Your task to perform on an android device: check data usage Image 0: 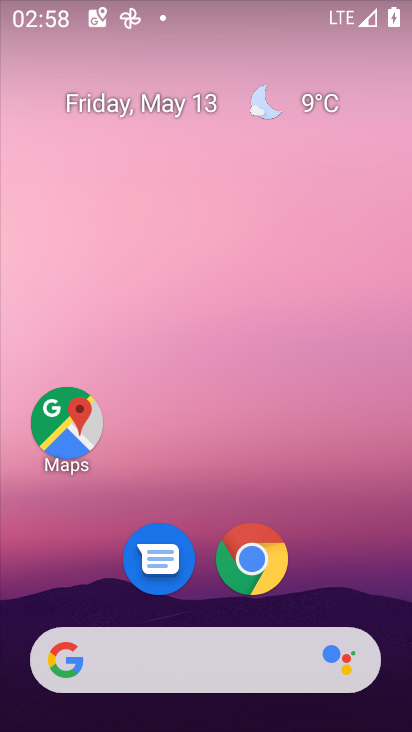
Step 0: drag from (399, 674) to (362, 238)
Your task to perform on an android device: check data usage Image 1: 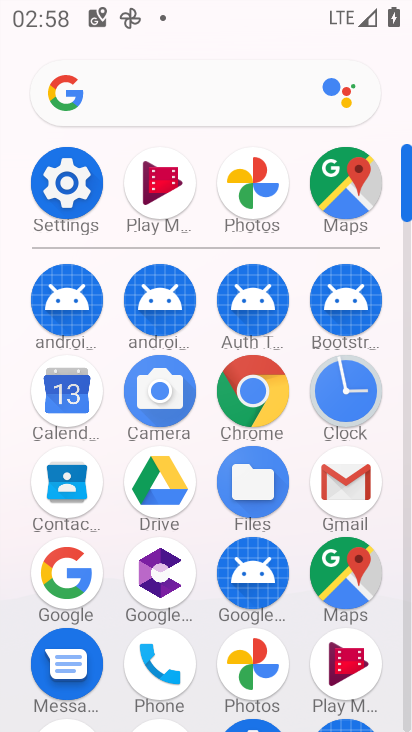
Step 1: click (48, 198)
Your task to perform on an android device: check data usage Image 2: 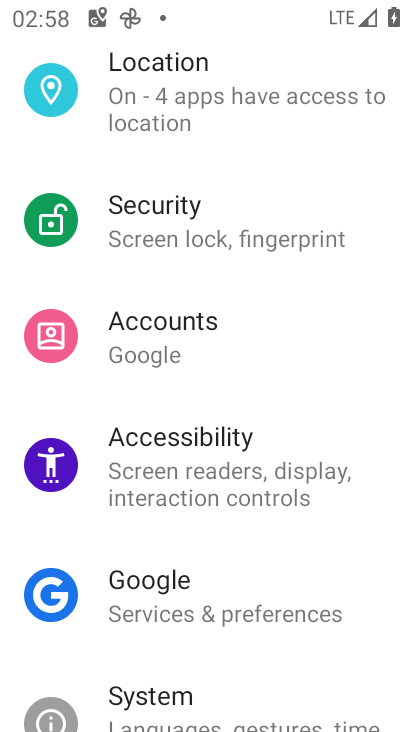
Step 2: drag from (332, 67) to (405, 582)
Your task to perform on an android device: check data usage Image 3: 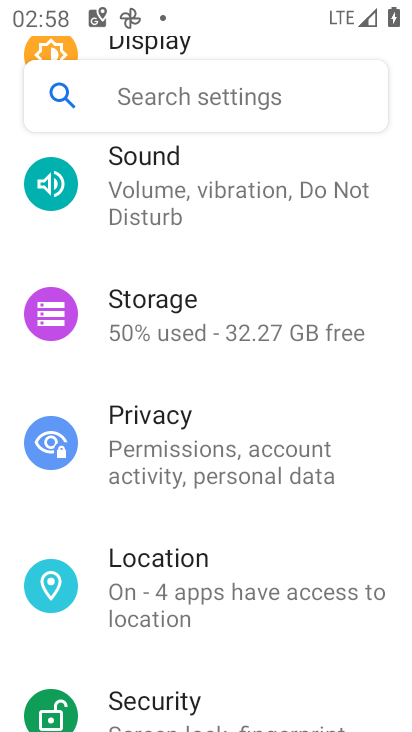
Step 3: drag from (361, 222) to (375, 563)
Your task to perform on an android device: check data usage Image 4: 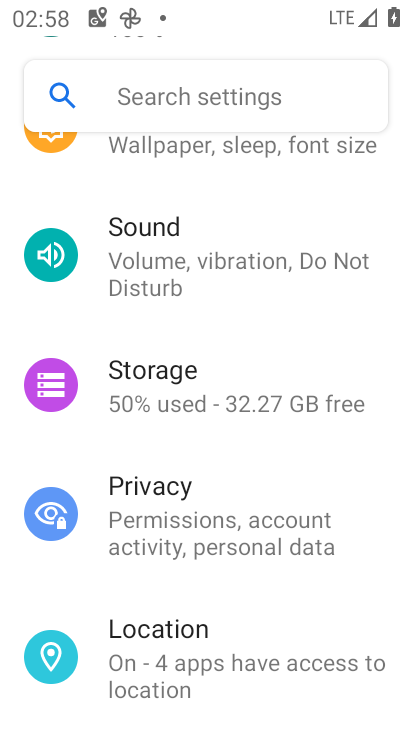
Step 4: drag from (333, 201) to (390, 451)
Your task to perform on an android device: check data usage Image 5: 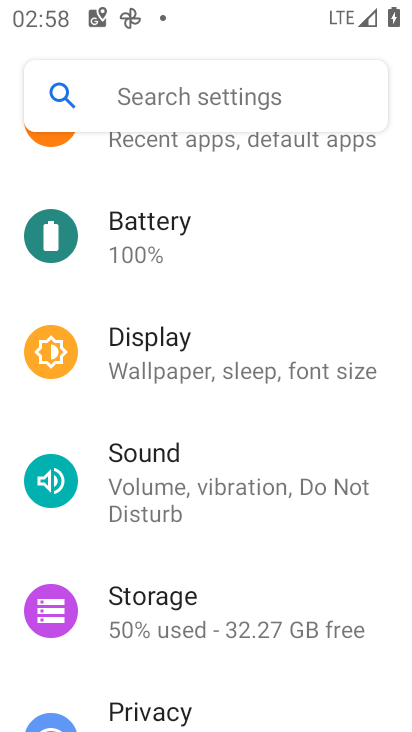
Step 5: drag from (332, 246) to (397, 584)
Your task to perform on an android device: check data usage Image 6: 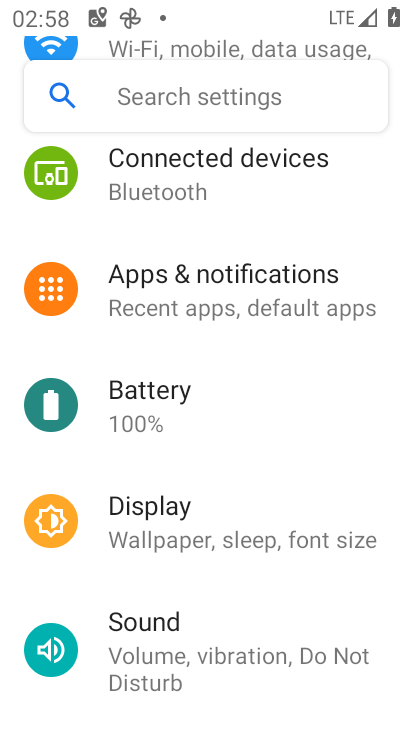
Step 6: drag from (357, 184) to (395, 473)
Your task to perform on an android device: check data usage Image 7: 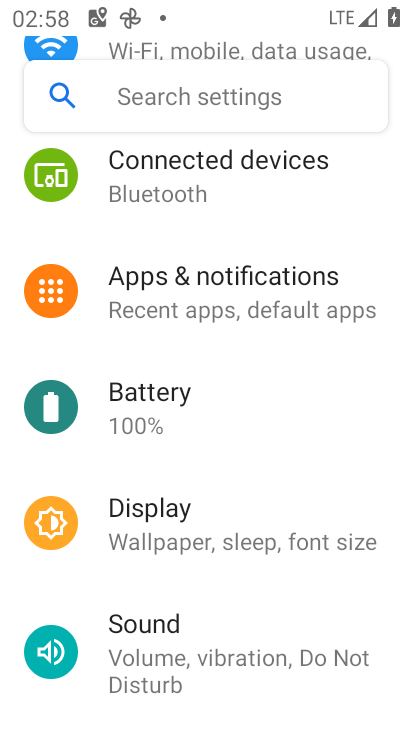
Step 7: drag from (364, 189) to (390, 557)
Your task to perform on an android device: check data usage Image 8: 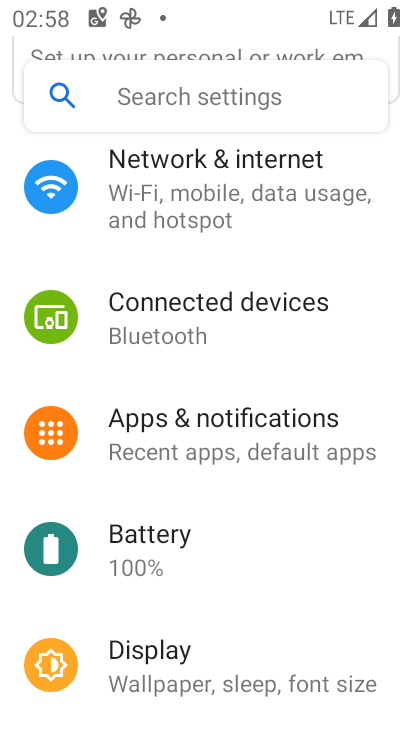
Step 8: click (205, 184)
Your task to perform on an android device: check data usage Image 9: 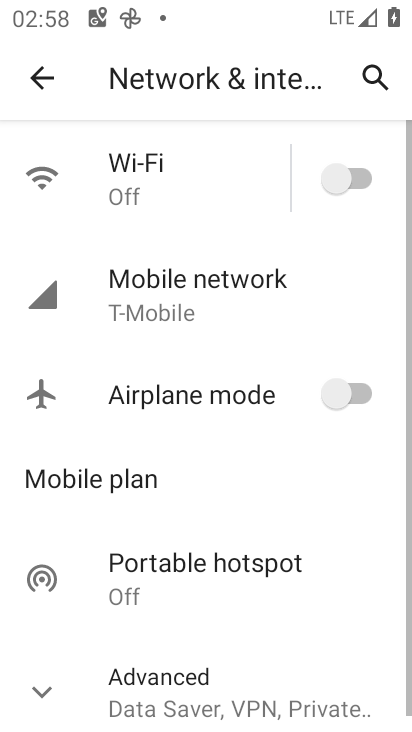
Step 9: click (148, 286)
Your task to perform on an android device: check data usage Image 10: 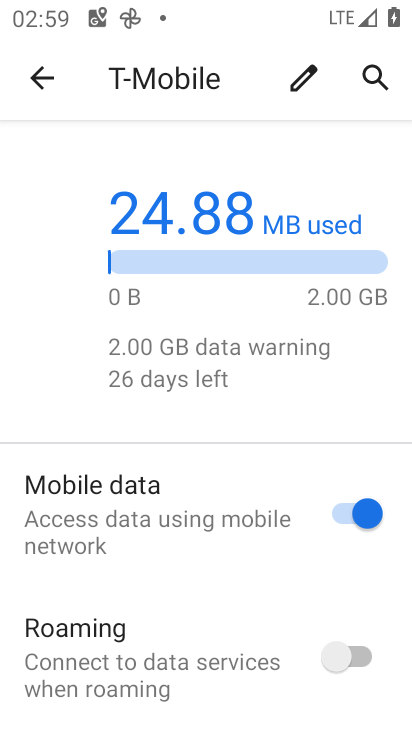
Step 10: task complete